Your task to perform on an android device: Open notification settings Image 0: 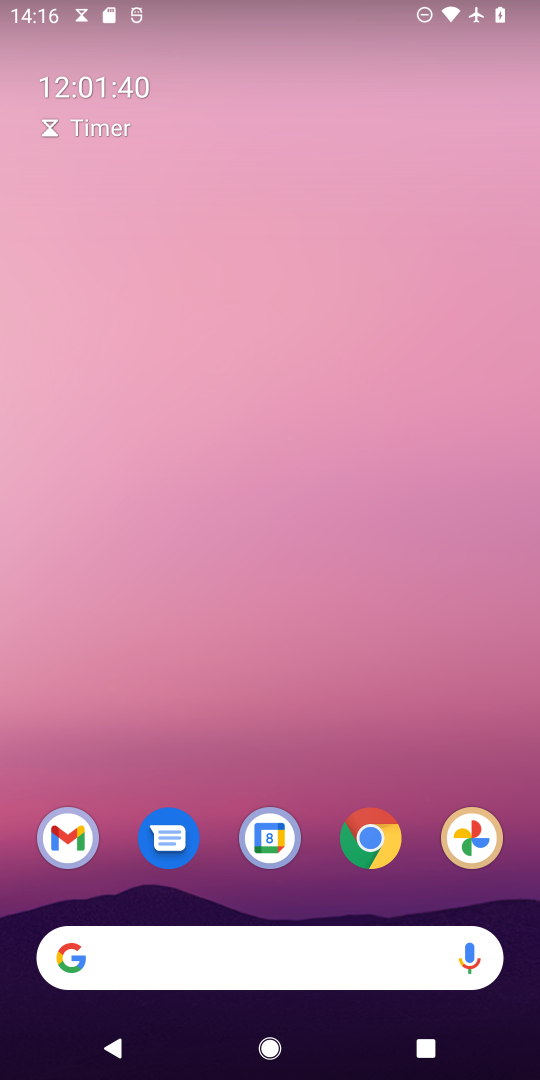
Step 0: press home button
Your task to perform on an android device: Open notification settings Image 1: 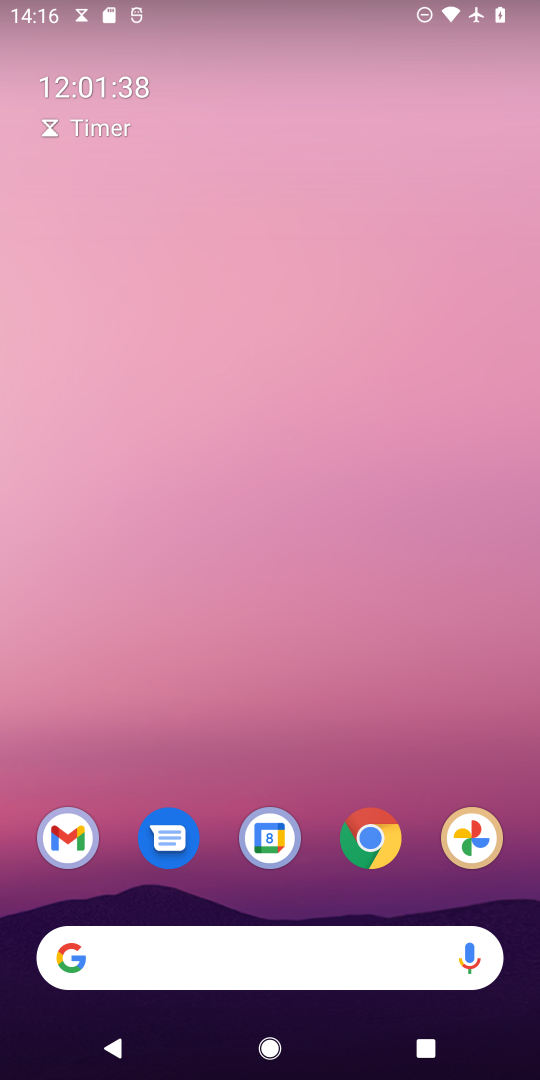
Step 1: drag from (312, 904) to (354, 204)
Your task to perform on an android device: Open notification settings Image 2: 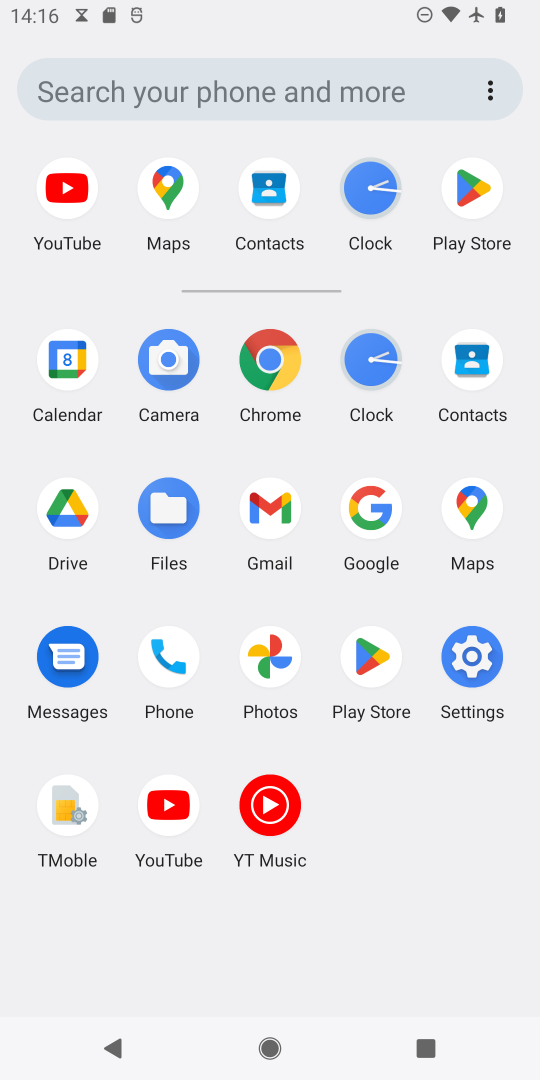
Step 2: click (465, 653)
Your task to perform on an android device: Open notification settings Image 3: 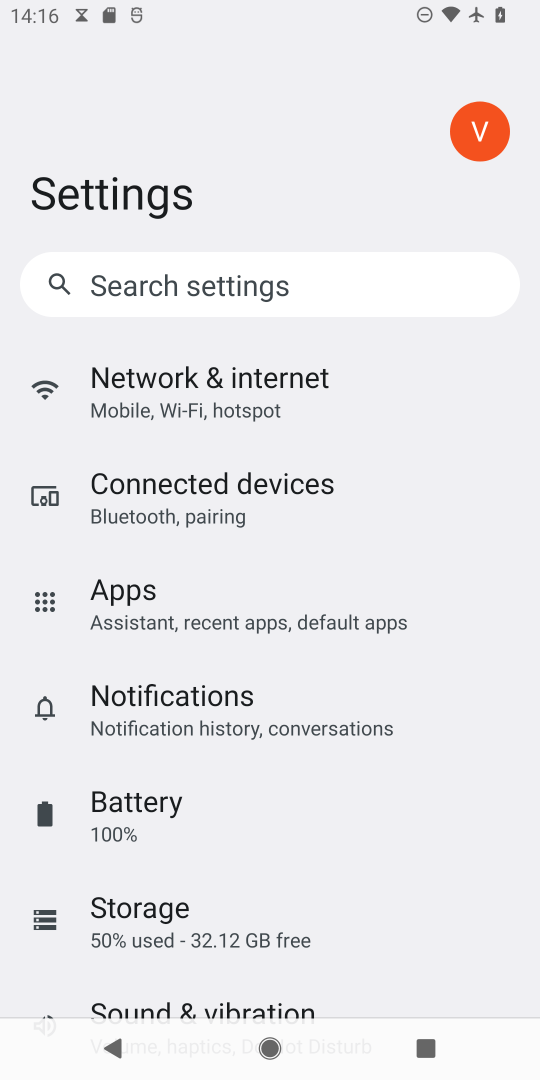
Step 3: click (197, 711)
Your task to perform on an android device: Open notification settings Image 4: 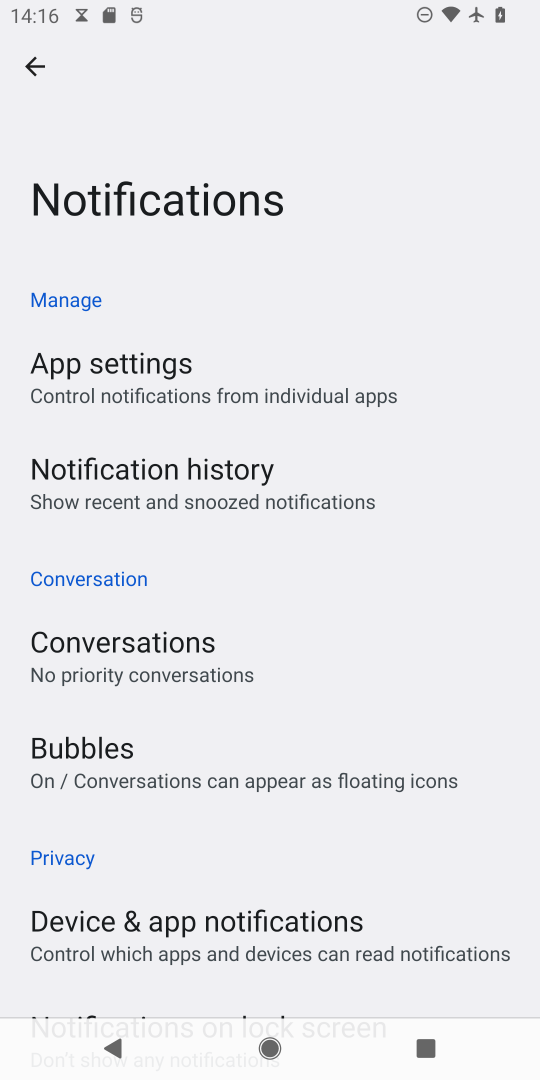
Step 4: task complete